Your task to perform on an android device: Open eBay Image 0: 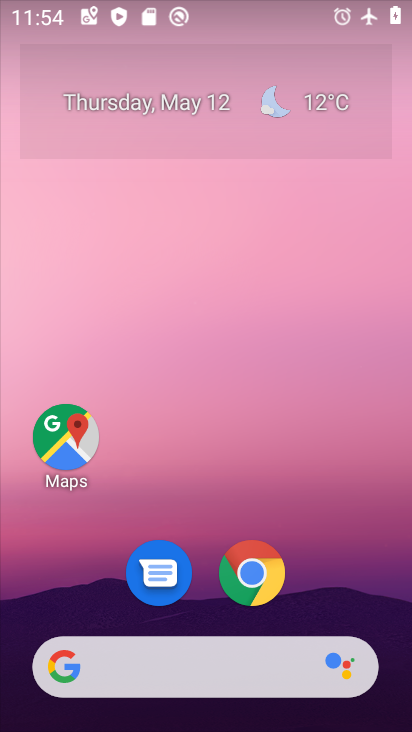
Step 0: click (232, 666)
Your task to perform on an android device: Open eBay Image 1: 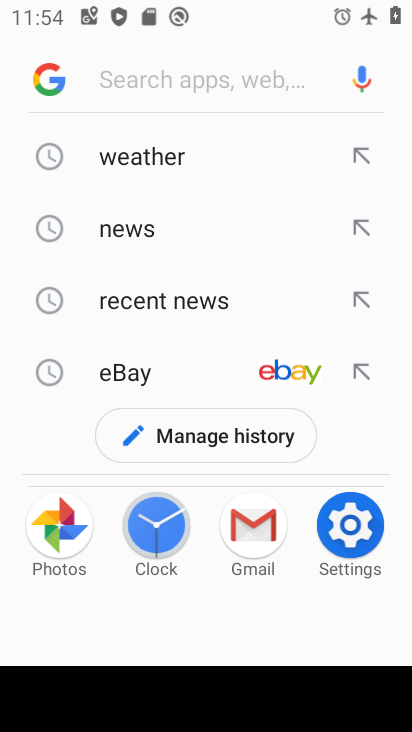
Step 1: click (327, 373)
Your task to perform on an android device: Open eBay Image 2: 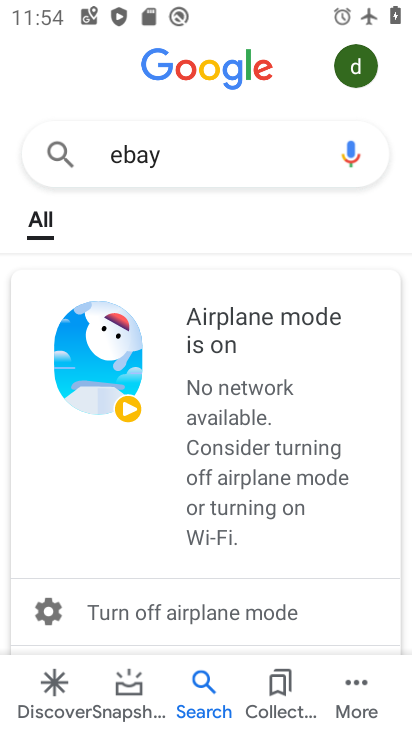
Step 2: task complete